Your task to perform on an android device: turn off translation in the chrome app Image 0: 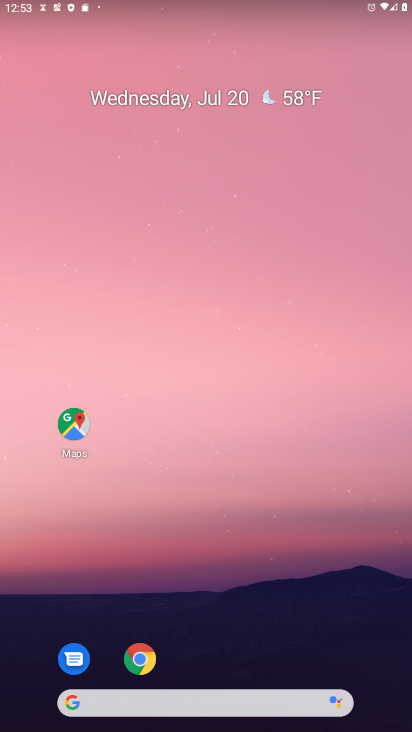
Step 0: press home button
Your task to perform on an android device: turn off translation in the chrome app Image 1: 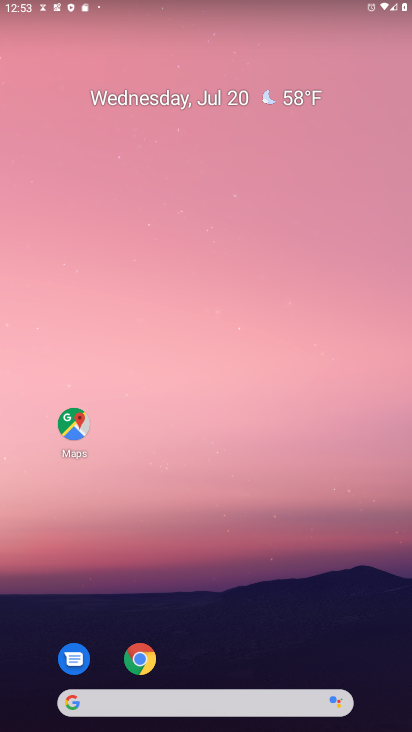
Step 1: click (136, 657)
Your task to perform on an android device: turn off translation in the chrome app Image 2: 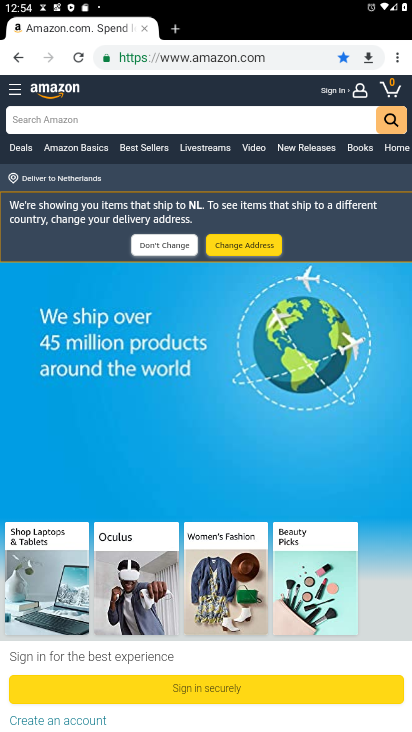
Step 2: click (401, 56)
Your task to perform on an android device: turn off translation in the chrome app Image 3: 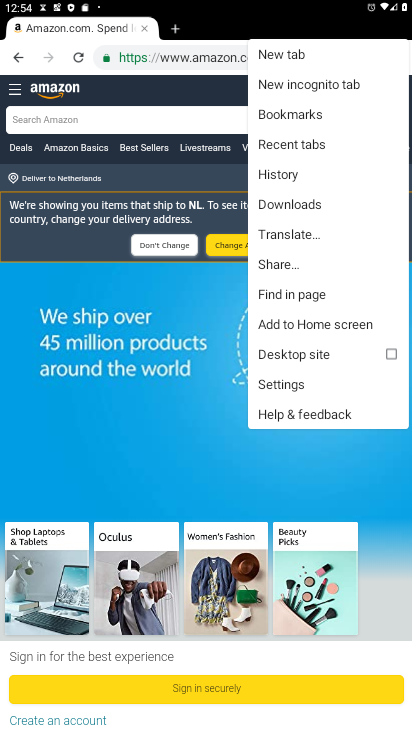
Step 3: click (296, 383)
Your task to perform on an android device: turn off translation in the chrome app Image 4: 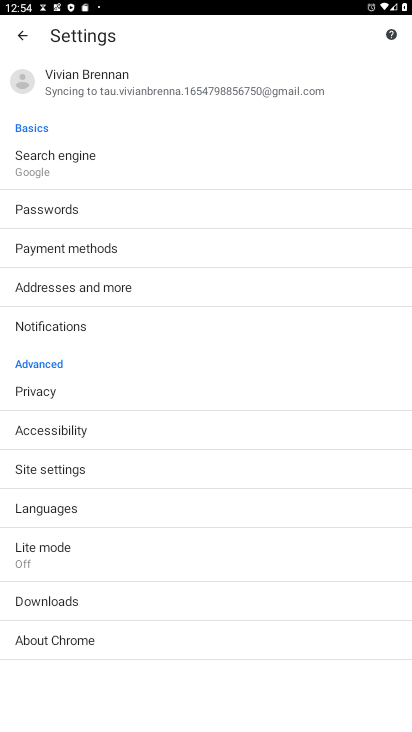
Step 4: click (89, 502)
Your task to perform on an android device: turn off translation in the chrome app Image 5: 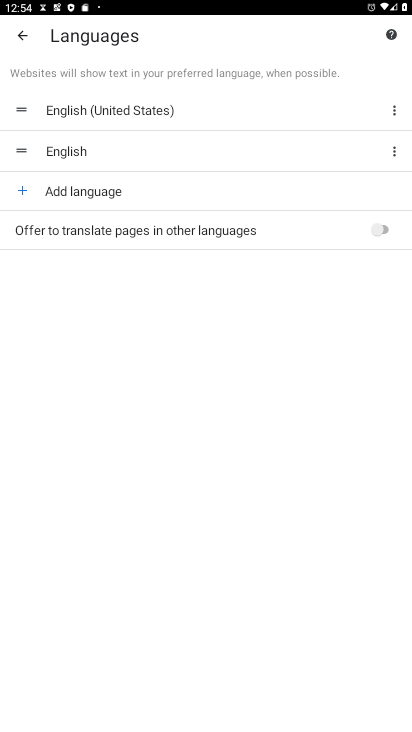
Step 5: task complete